Your task to perform on an android device: Search for seafood restaurants on Google Maps Image 0: 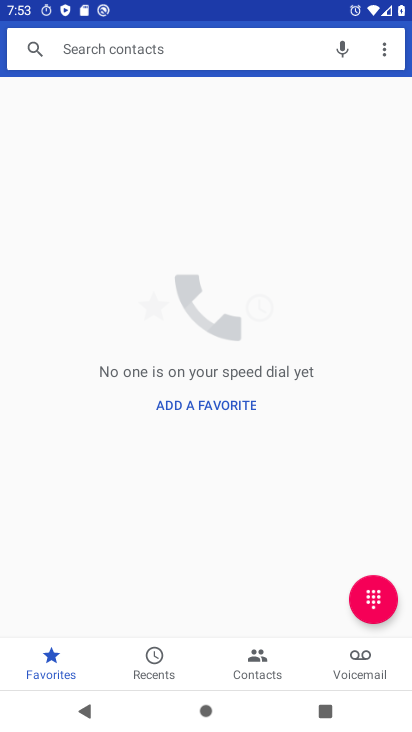
Step 0: drag from (227, 469) to (250, 263)
Your task to perform on an android device: Search for seafood restaurants on Google Maps Image 1: 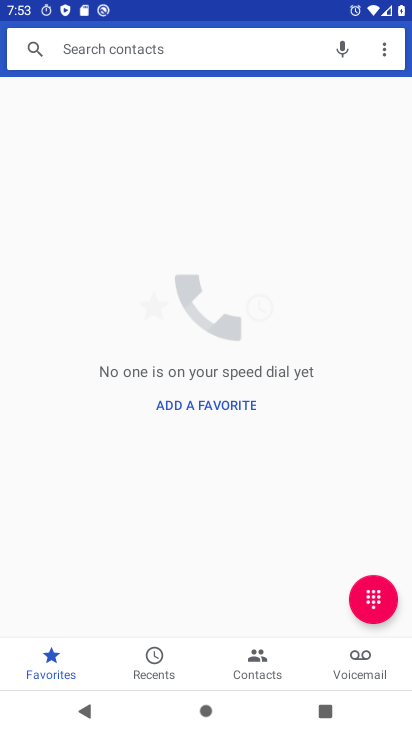
Step 1: press home button
Your task to perform on an android device: Search for seafood restaurants on Google Maps Image 2: 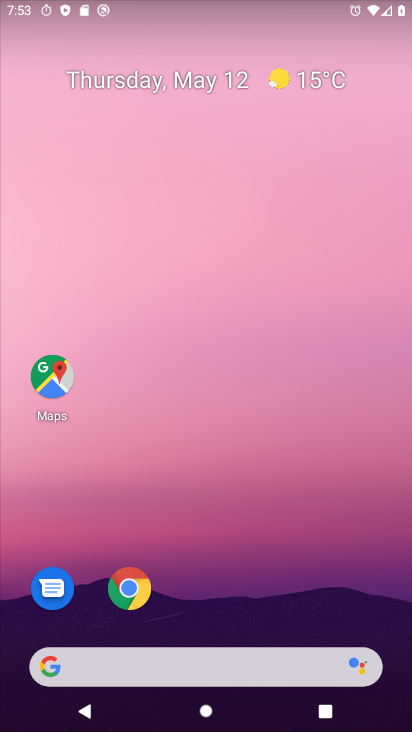
Step 2: click (54, 378)
Your task to perform on an android device: Search for seafood restaurants on Google Maps Image 3: 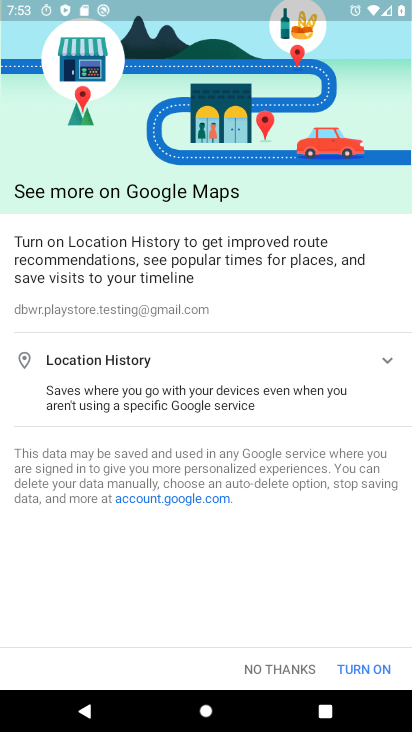
Step 3: click (365, 674)
Your task to perform on an android device: Search for seafood restaurants on Google Maps Image 4: 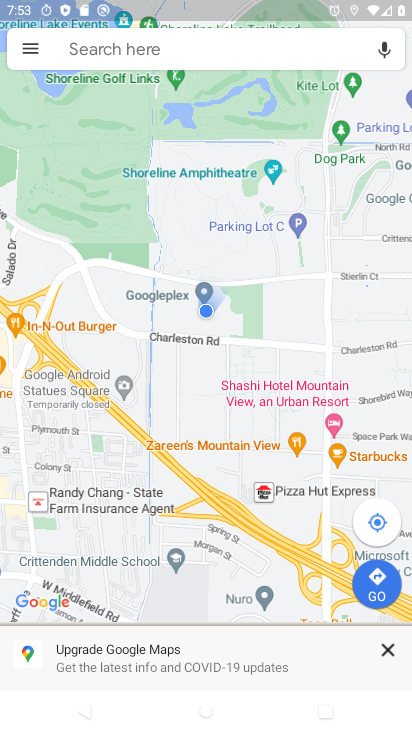
Step 4: click (148, 55)
Your task to perform on an android device: Search for seafood restaurants on Google Maps Image 5: 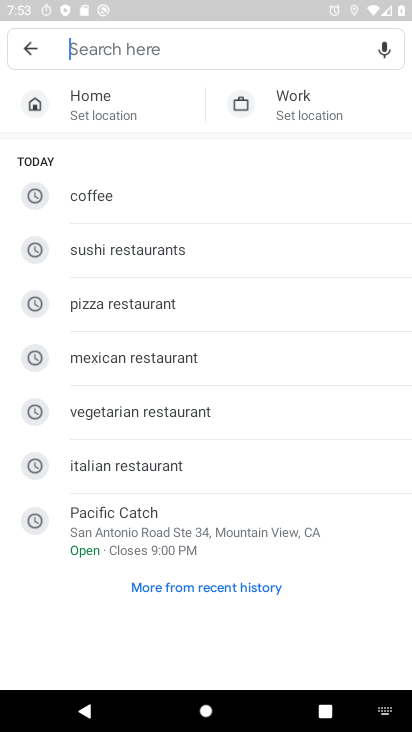
Step 5: type "seafood restaurants "
Your task to perform on an android device: Search for seafood restaurants on Google Maps Image 6: 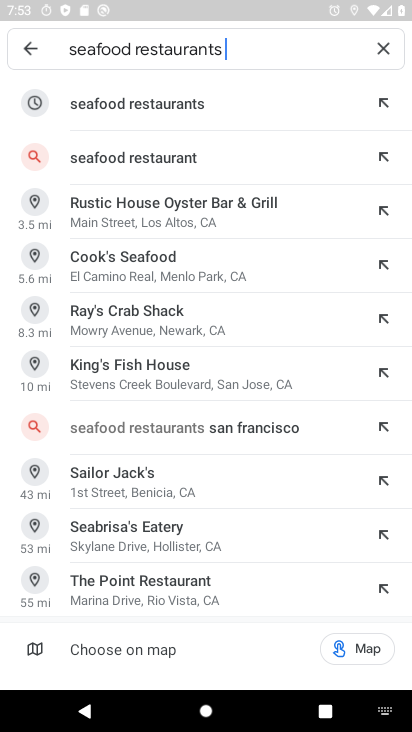
Step 6: click (127, 112)
Your task to perform on an android device: Search for seafood restaurants on Google Maps Image 7: 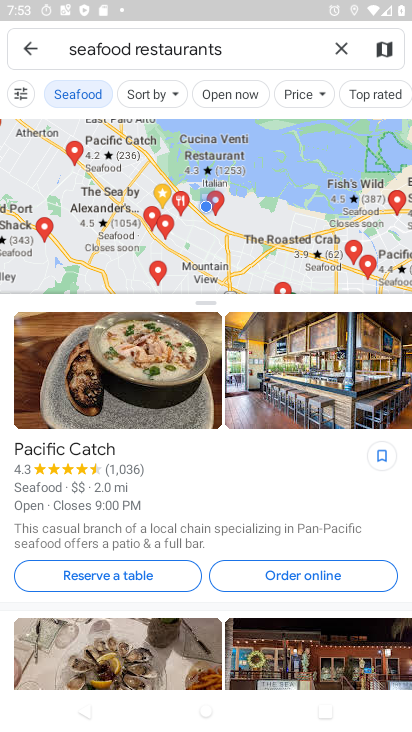
Step 7: task complete